Your task to perform on an android device: find snoozed emails in the gmail app Image 0: 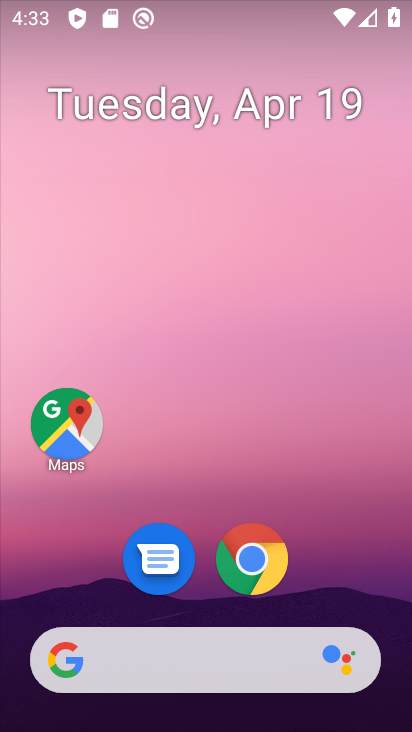
Step 0: drag from (361, 583) to (342, 72)
Your task to perform on an android device: find snoozed emails in the gmail app Image 1: 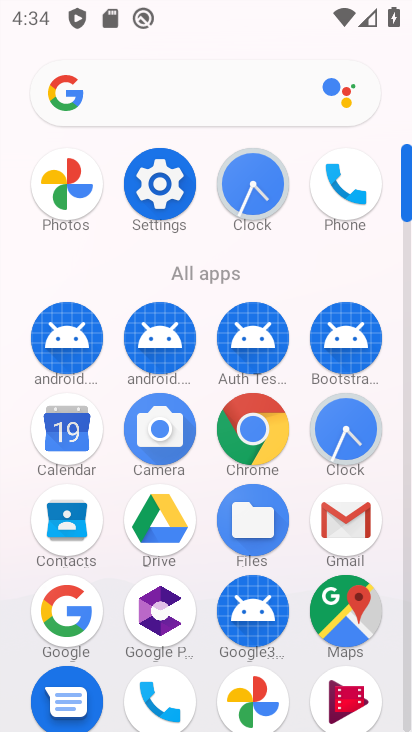
Step 1: click (361, 503)
Your task to perform on an android device: find snoozed emails in the gmail app Image 2: 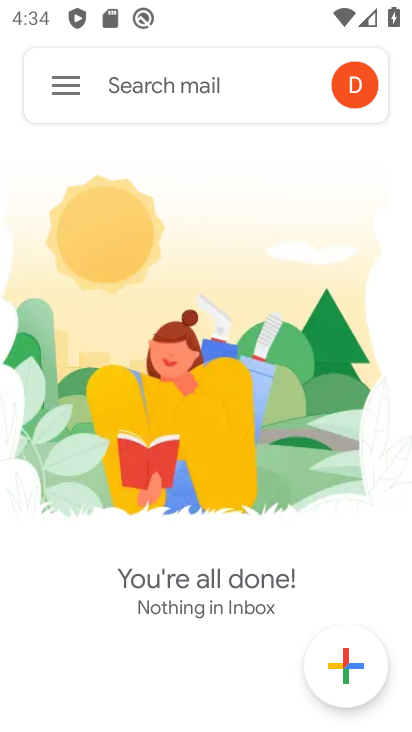
Step 2: click (75, 85)
Your task to perform on an android device: find snoozed emails in the gmail app Image 3: 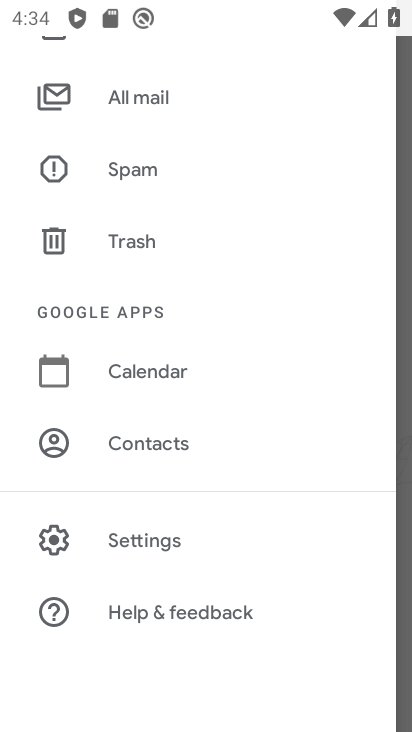
Step 3: drag from (216, 186) to (167, 705)
Your task to perform on an android device: find snoozed emails in the gmail app Image 4: 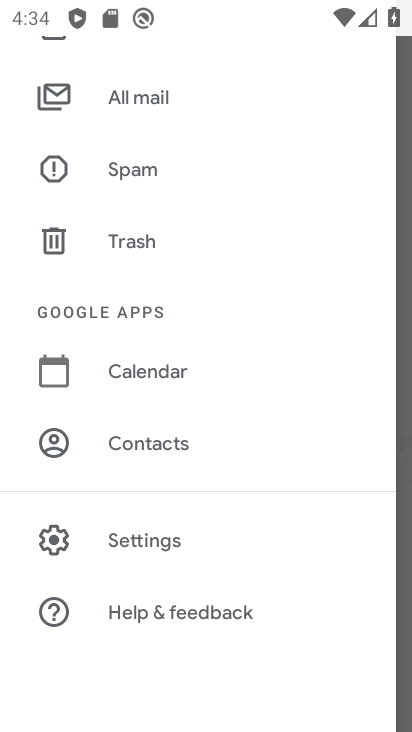
Step 4: drag from (144, 162) to (170, 567)
Your task to perform on an android device: find snoozed emails in the gmail app Image 5: 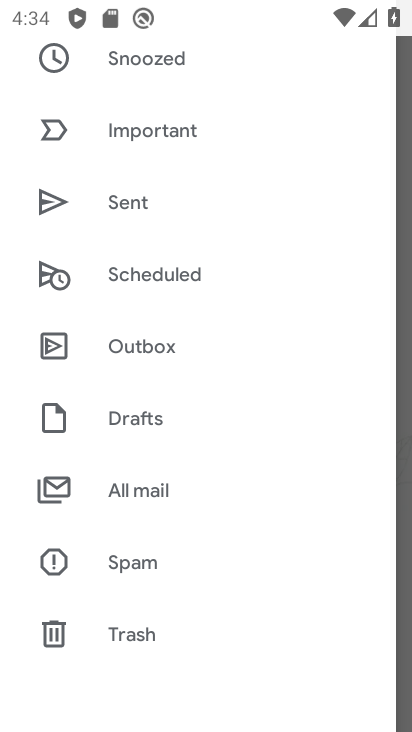
Step 5: click (171, 76)
Your task to perform on an android device: find snoozed emails in the gmail app Image 6: 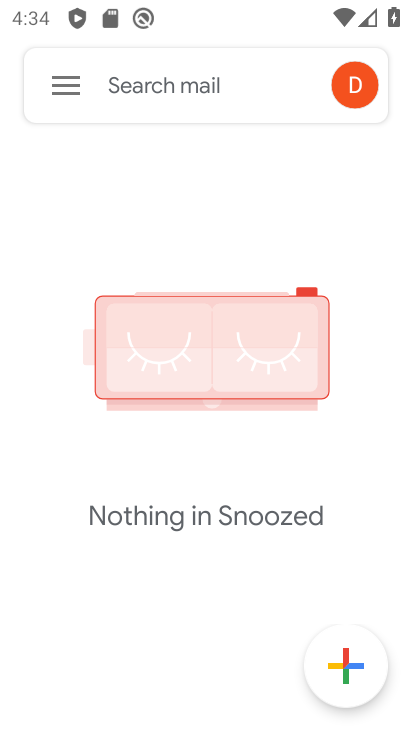
Step 6: task complete